Your task to perform on an android device: Open the calendar and show me this week's events Image 0: 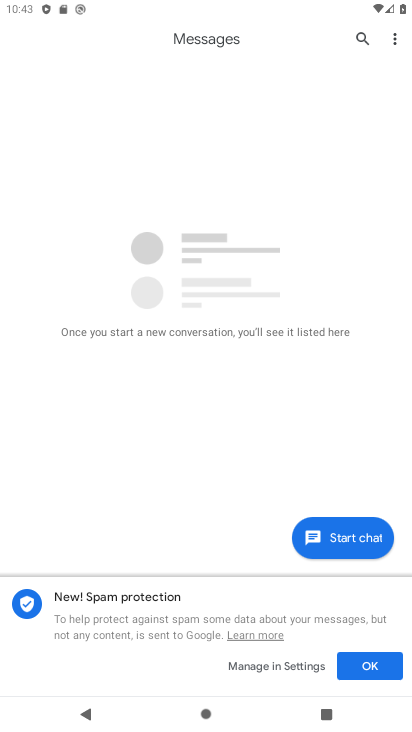
Step 0: drag from (381, 596) to (352, 469)
Your task to perform on an android device: Open the calendar and show me this week's events Image 1: 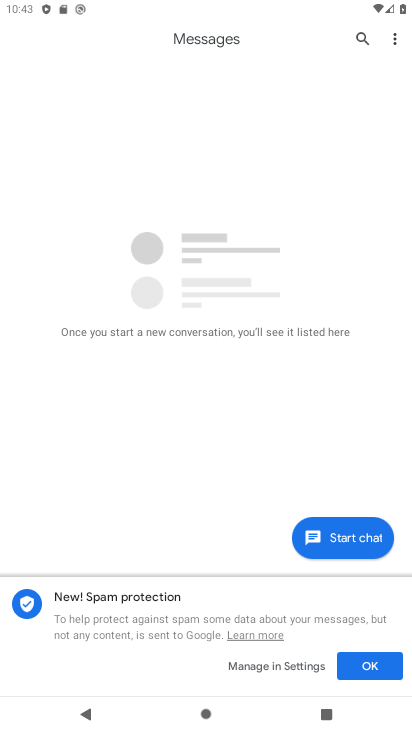
Step 1: press home button
Your task to perform on an android device: Open the calendar and show me this week's events Image 2: 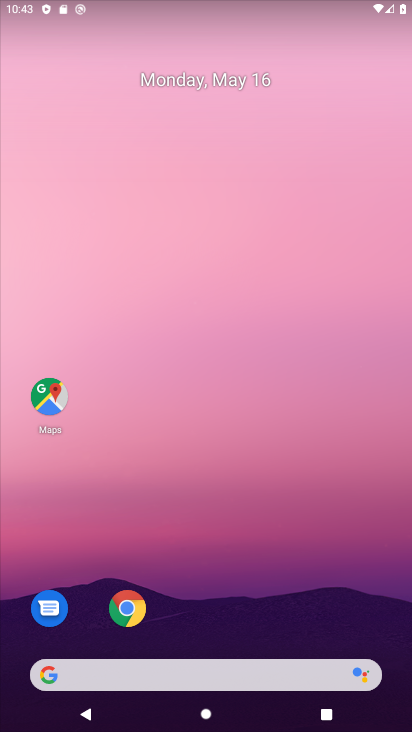
Step 2: drag from (376, 571) to (366, 138)
Your task to perform on an android device: Open the calendar and show me this week's events Image 3: 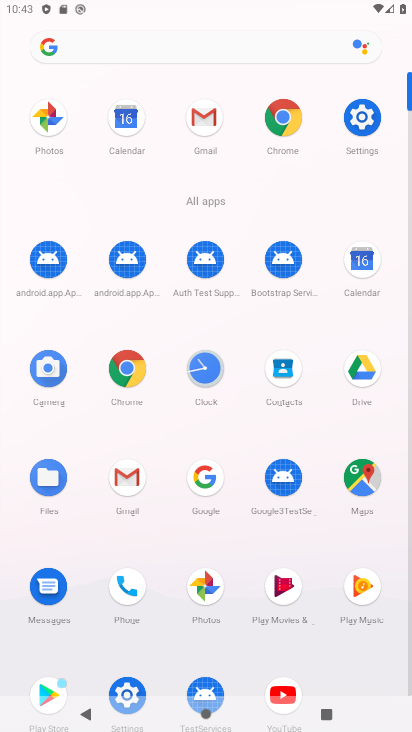
Step 3: click (362, 265)
Your task to perform on an android device: Open the calendar and show me this week's events Image 4: 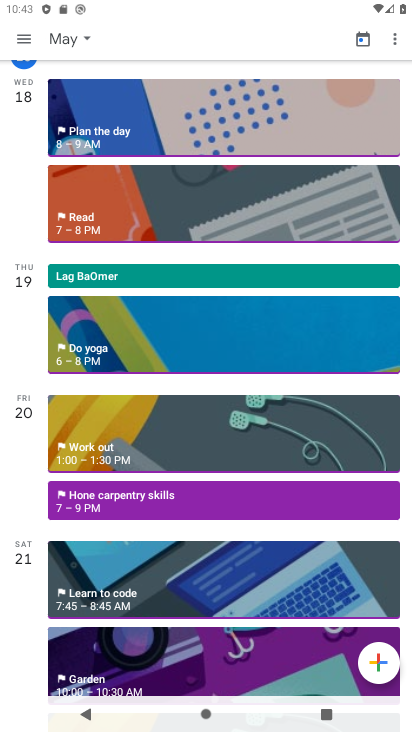
Step 4: task complete